Your task to perform on an android device: Show me productivity apps on the Play Store Image 0: 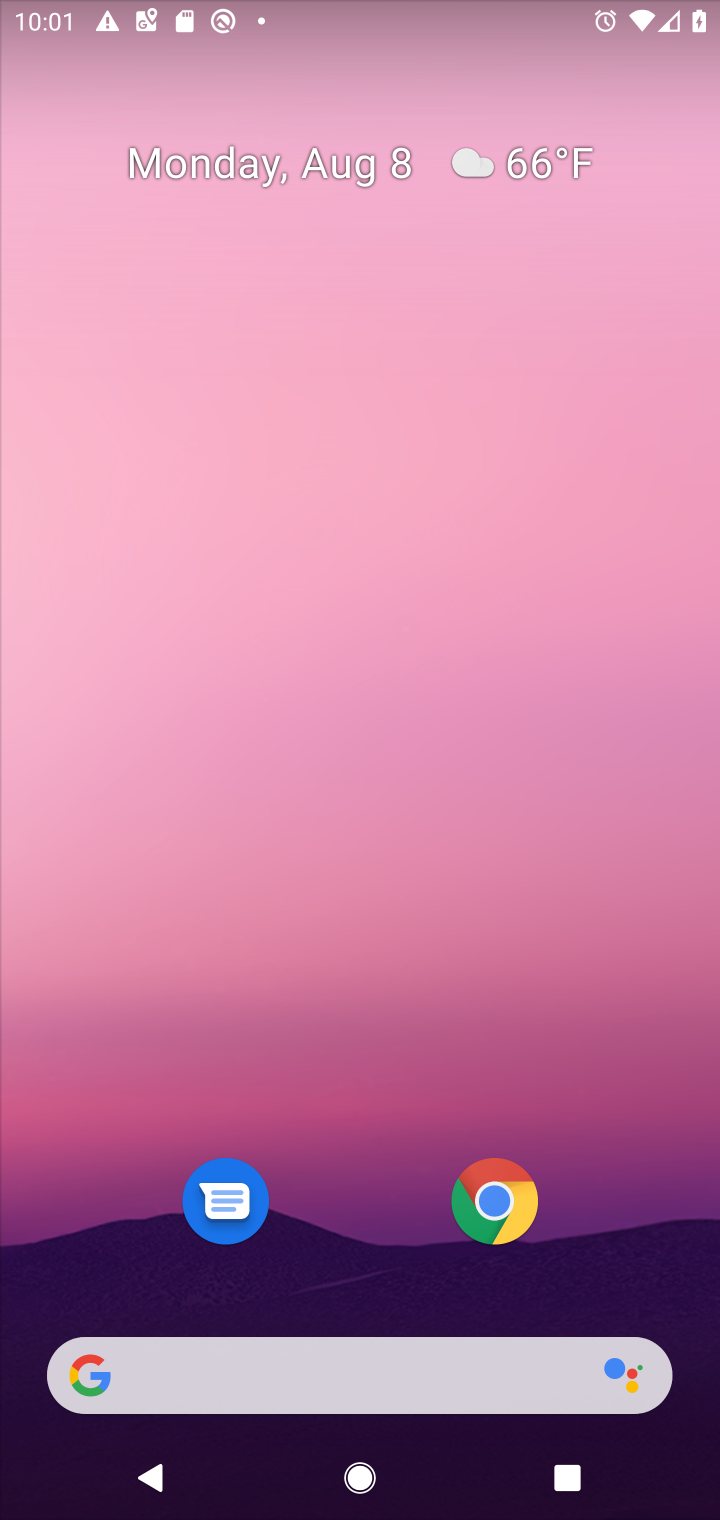
Step 0: drag from (380, 1256) to (450, 230)
Your task to perform on an android device: Show me productivity apps on the Play Store Image 1: 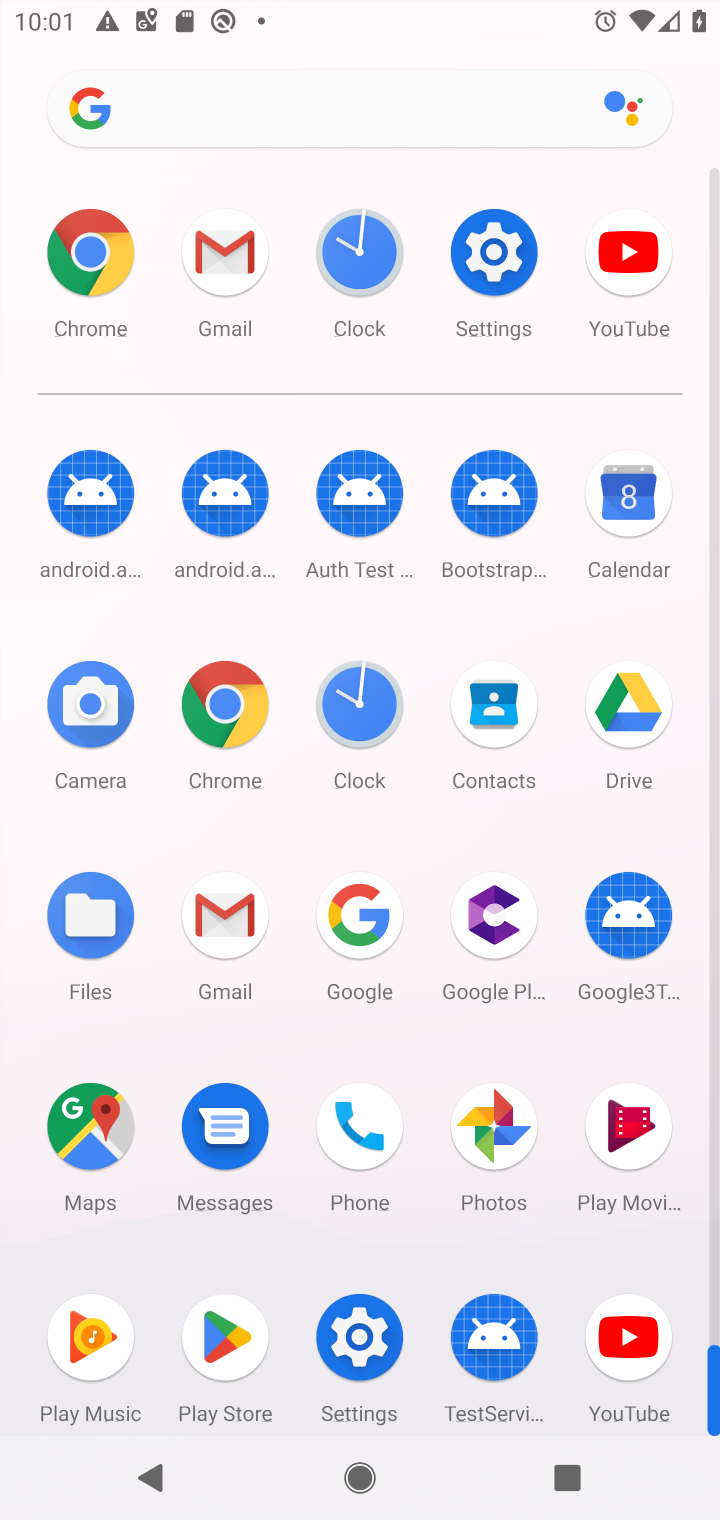
Step 1: click (219, 1347)
Your task to perform on an android device: Show me productivity apps on the Play Store Image 2: 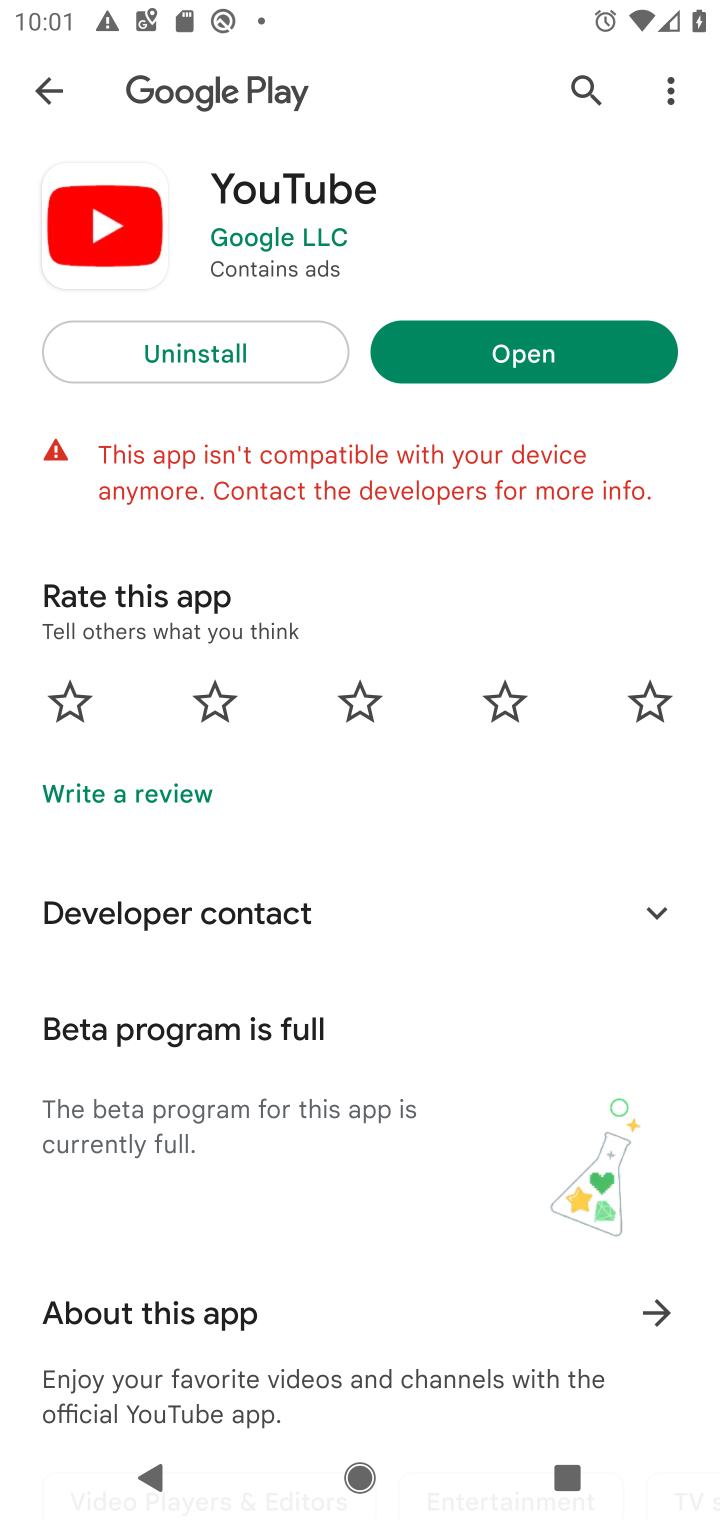
Step 2: press back button
Your task to perform on an android device: Show me productivity apps on the Play Store Image 3: 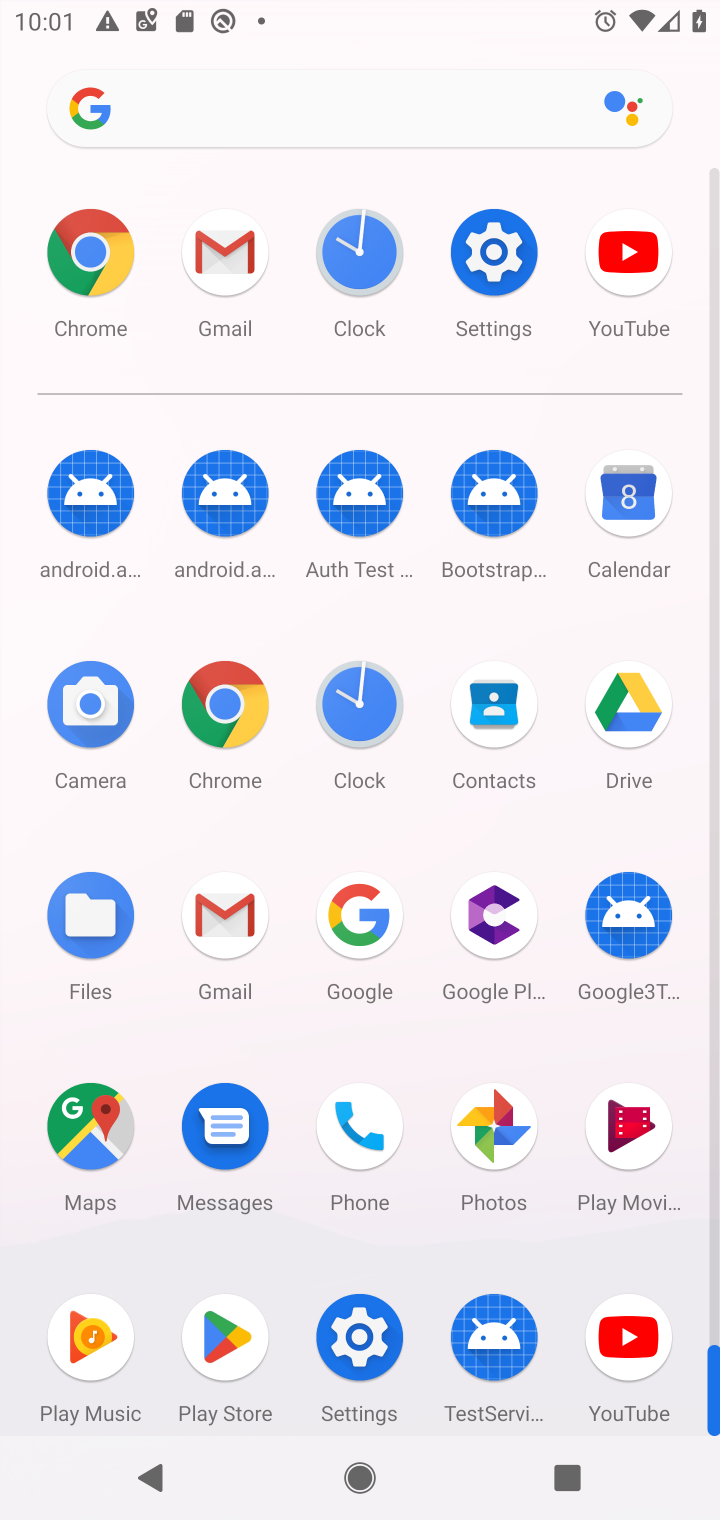
Step 3: click (221, 1352)
Your task to perform on an android device: Show me productivity apps on the Play Store Image 4: 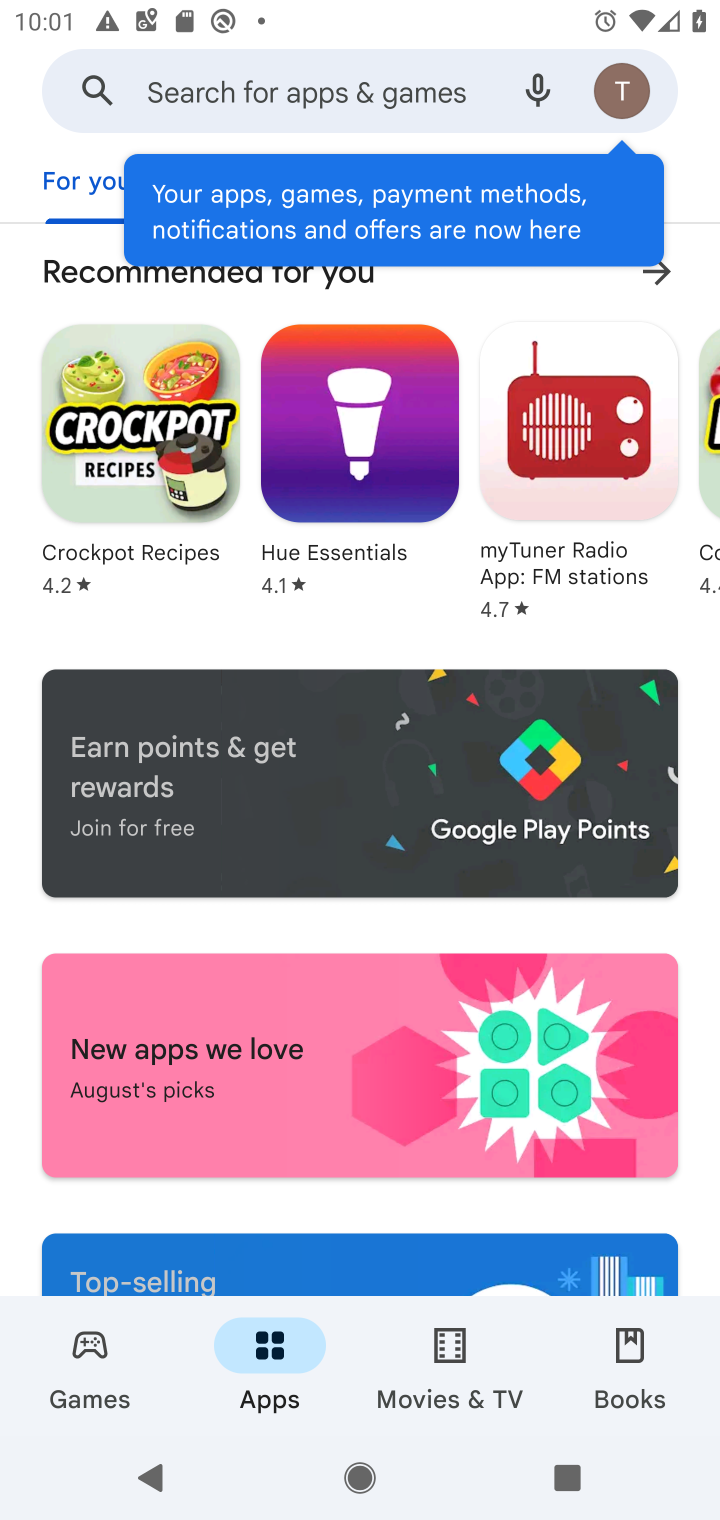
Step 4: task complete